Your task to perform on an android device: turn on priority inbox in the gmail app Image 0: 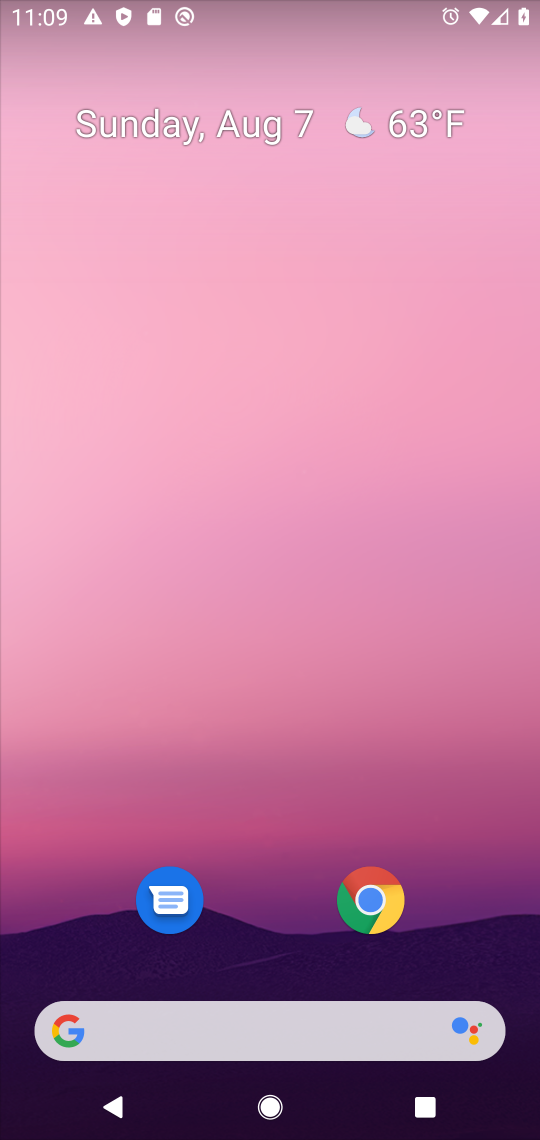
Step 0: drag from (288, 931) to (283, 218)
Your task to perform on an android device: turn on priority inbox in the gmail app Image 1: 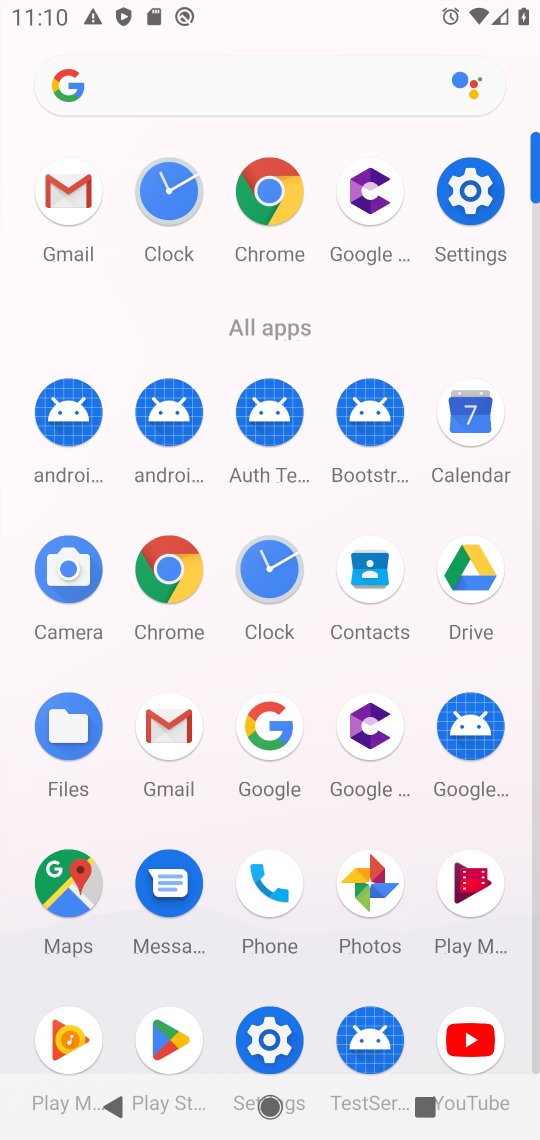
Step 1: click (66, 183)
Your task to perform on an android device: turn on priority inbox in the gmail app Image 2: 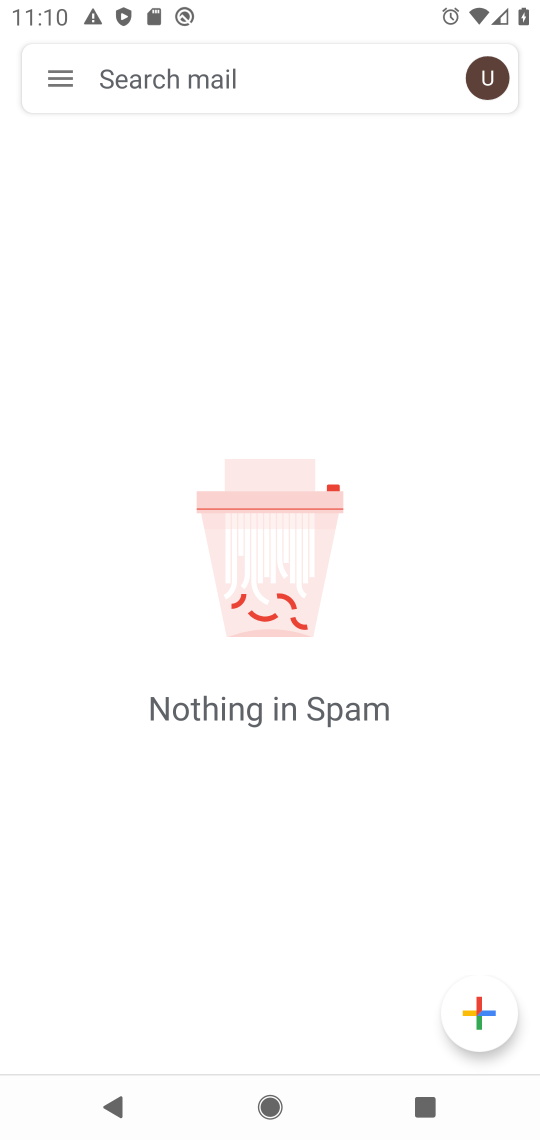
Step 2: click (57, 77)
Your task to perform on an android device: turn on priority inbox in the gmail app Image 3: 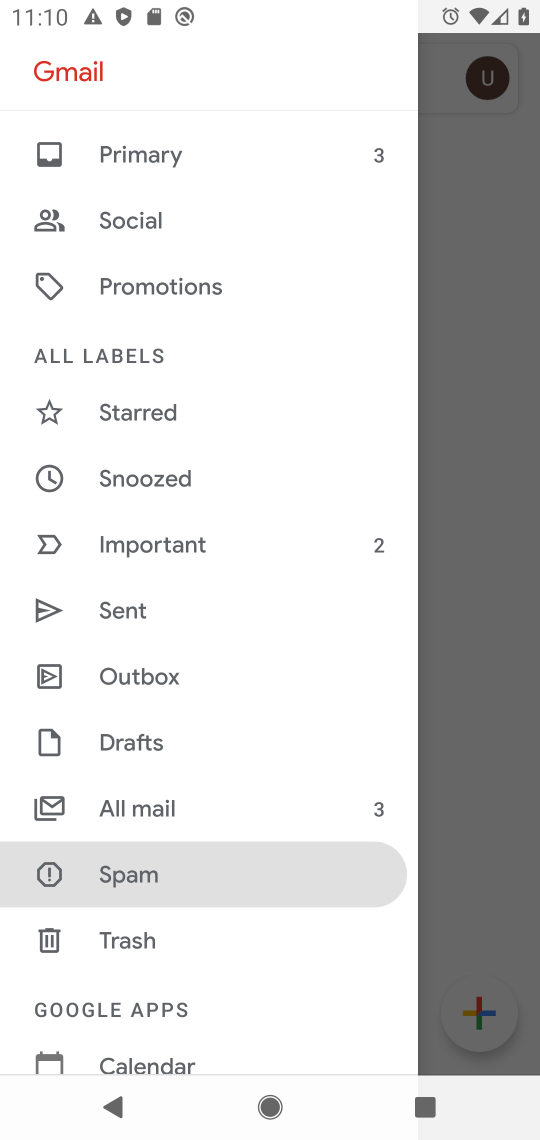
Step 3: drag from (232, 981) to (231, 285)
Your task to perform on an android device: turn on priority inbox in the gmail app Image 4: 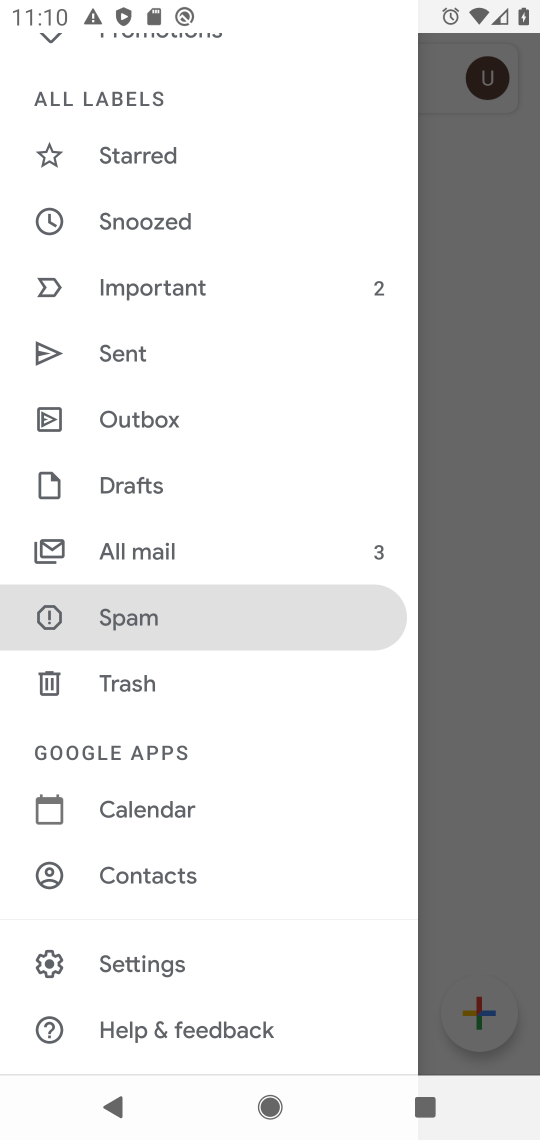
Step 4: click (197, 958)
Your task to perform on an android device: turn on priority inbox in the gmail app Image 5: 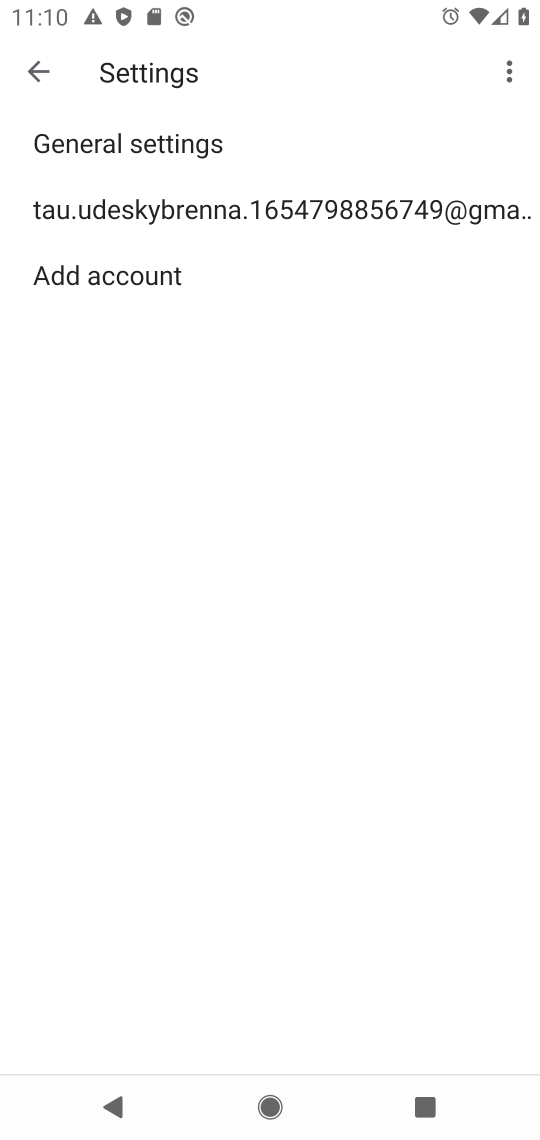
Step 5: click (233, 191)
Your task to perform on an android device: turn on priority inbox in the gmail app Image 6: 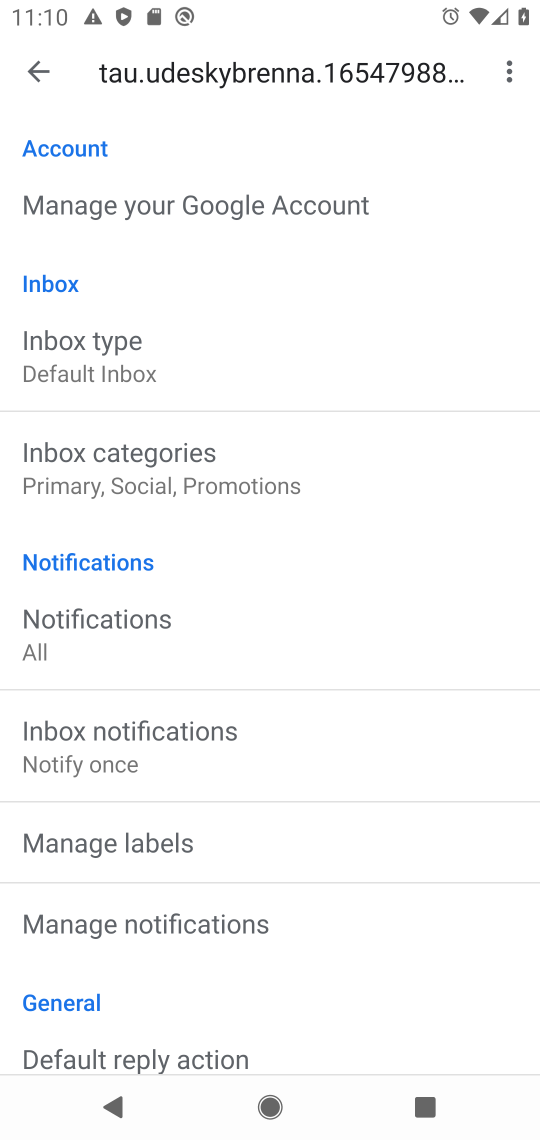
Step 6: click (180, 355)
Your task to perform on an android device: turn on priority inbox in the gmail app Image 7: 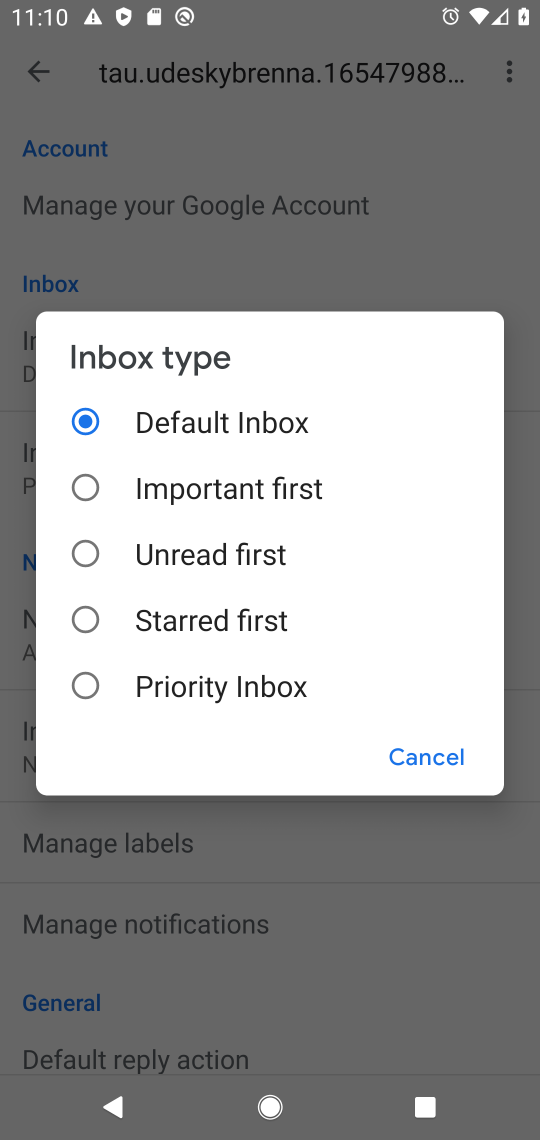
Step 7: click (87, 679)
Your task to perform on an android device: turn on priority inbox in the gmail app Image 8: 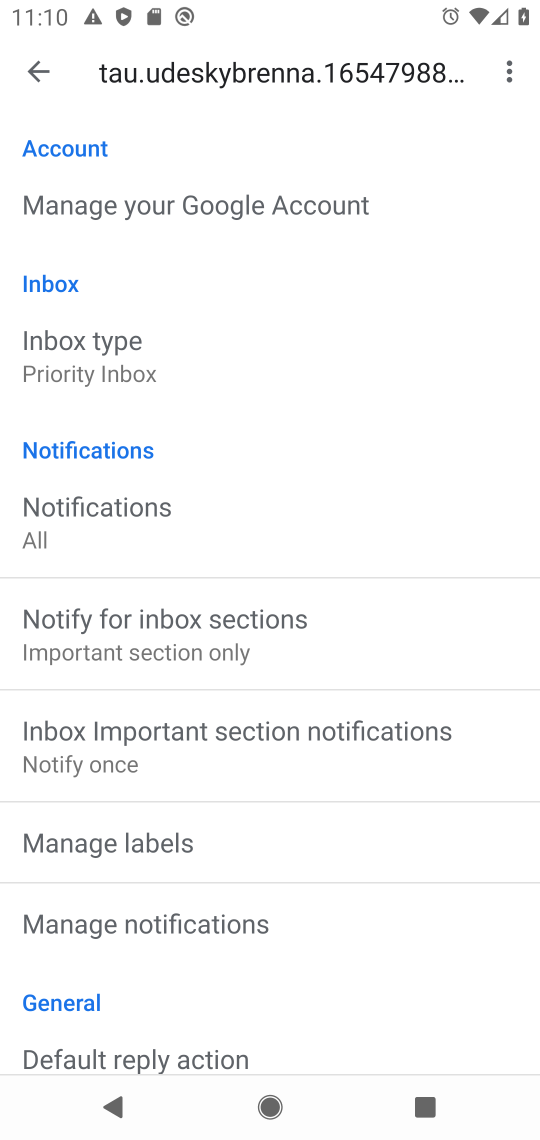
Step 8: task complete